Your task to perform on an android device: Search for vegetarian restaurants on Maps Image 0: 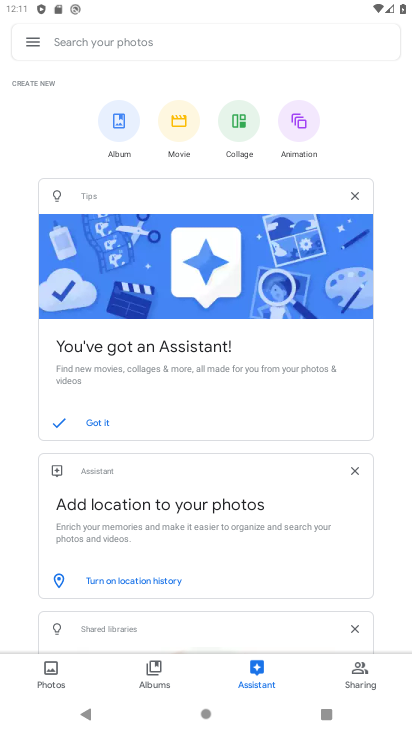
Step 0: press home button
Your task to perform on an android device: Search for vegetarian restaurants on Maps Image 1: 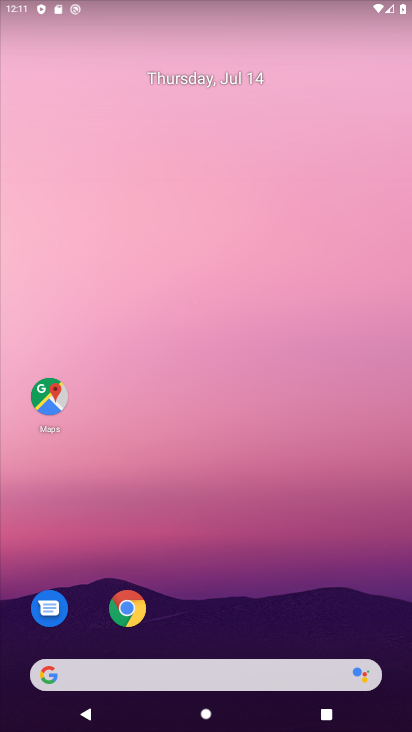
Step 1: click (48, 367)
Your task to perform on an android device: Search for vegetarian restaurants on Maps Image 2: 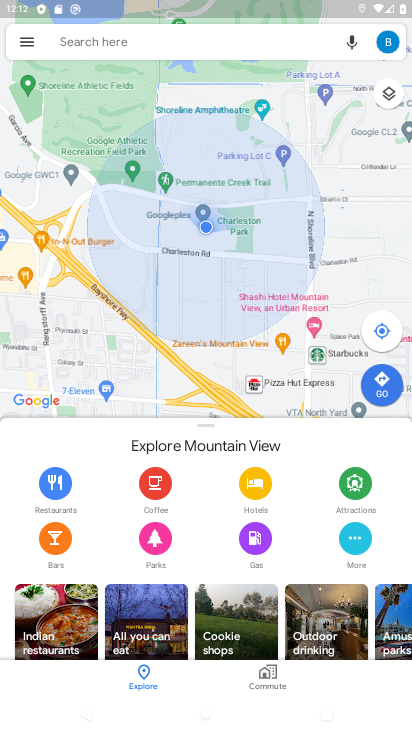
Step 2: click (214, 24)
Your task to perform on an android device: Search for vegetarian restaurants on Maps Image 3: 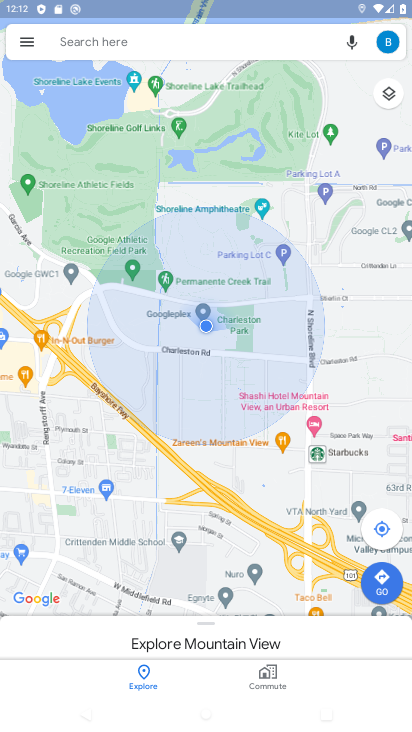
Step 3: click (187, 46)
Your task to perform on an android device: Search for vegetarian restaurants on Maps Image 4: 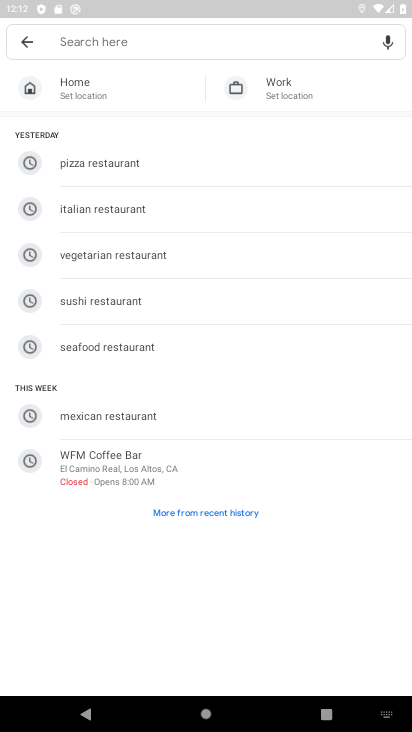
Step 4: click (160, 253)
Your task to perform on an android device: Search for vegetarian restaurants on Maps Image 5: 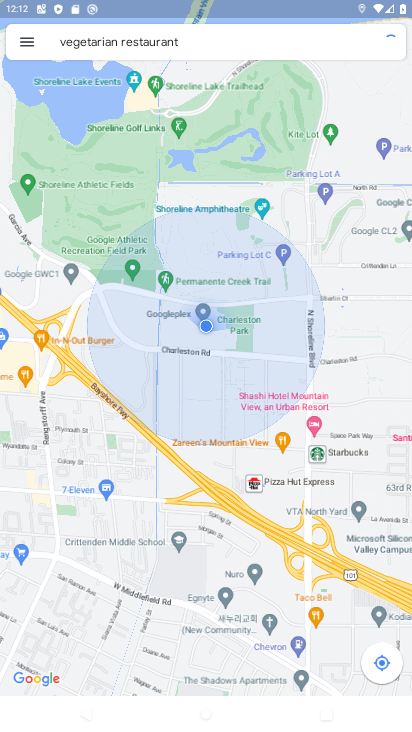
Step 5: task complete